Your task to perform on an android device: change the clock display to analog Image 0: 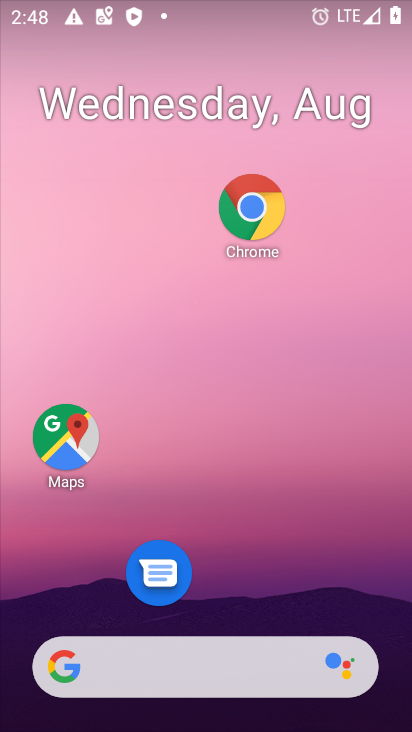
Step 0: drag from (218, 600) to (211, 109)
Your task to perform on an android device: change the clock display to analog Image 1: 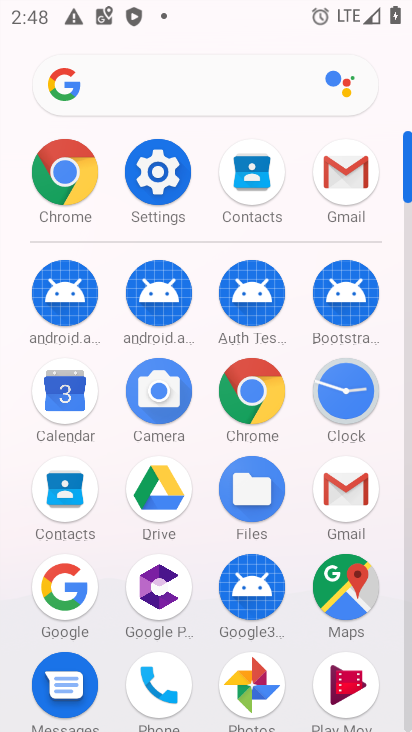
Step 1: click (358, 393)
Your task to perform on an android device: change the clock display to analog Image 2: 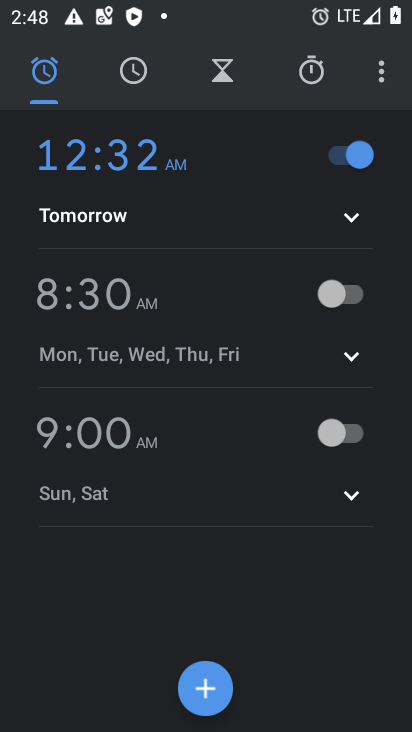
Step 2: click (371, 67)
Your task to perform on an android device: change the clock display to analog Image 3: 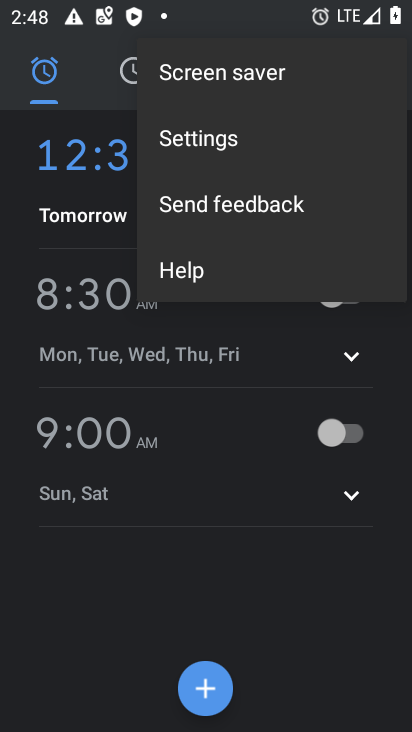
Step 3: click (238, 130)
Your task to perform on an android device: change the clock display to analog Image 4: 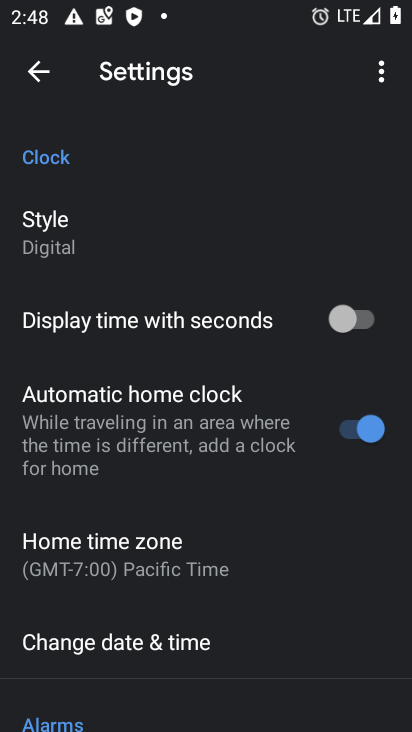
Step 4: click (154, 232)
Your task to perform on an android device: change the clock display to analog Image 5: 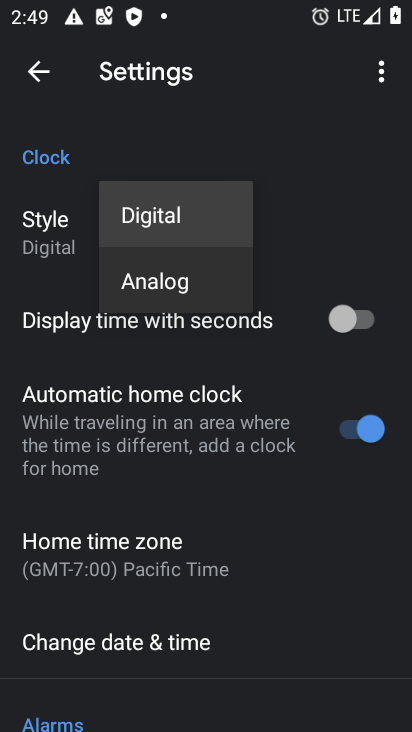
Step 5: click (170, 284)
Your task to perform on an android device: change the clock display to analog Image 6: 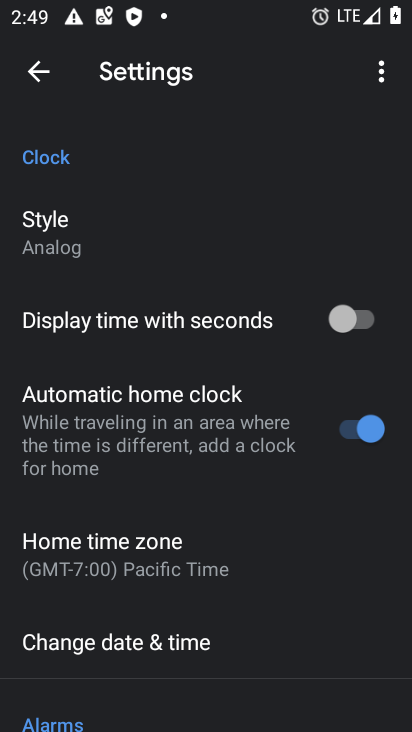
Step 6: task complete